Your task to perform on an android device: all mails in gmail Image 0: 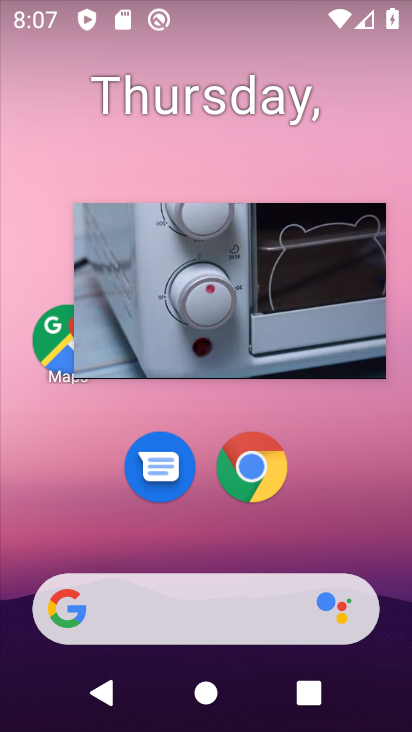
Step 0: click (233, 270)
Your task to perform on an android device: all mails in gmail Image 1: 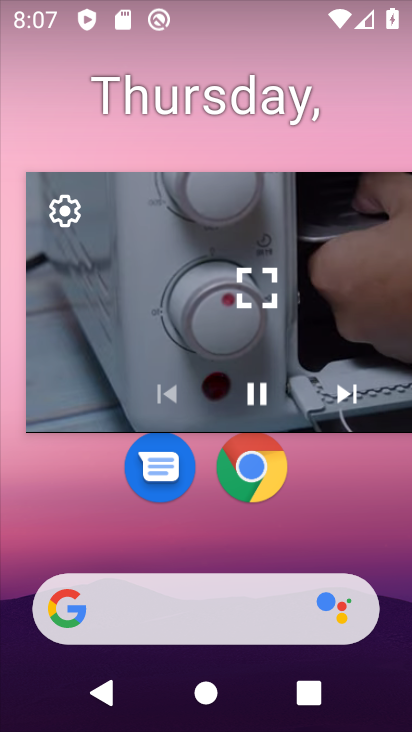
Step 1: click (226, 275)
Your task to perform on an android device: all mails in gmail Image 2: 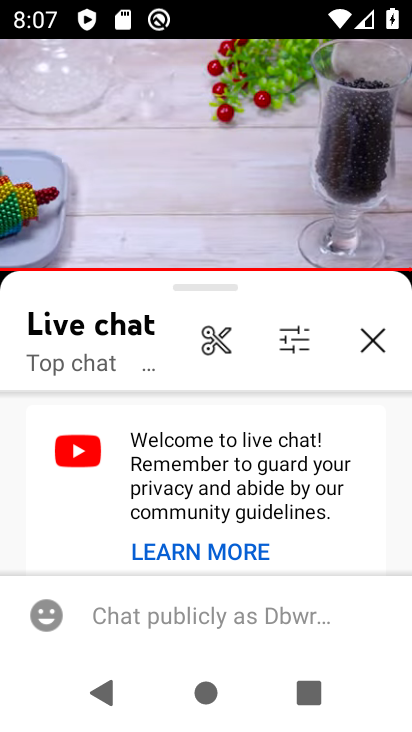
Step 2: click (222, 132)
Your task to perform on an android device: all mails in gmail Image 3: 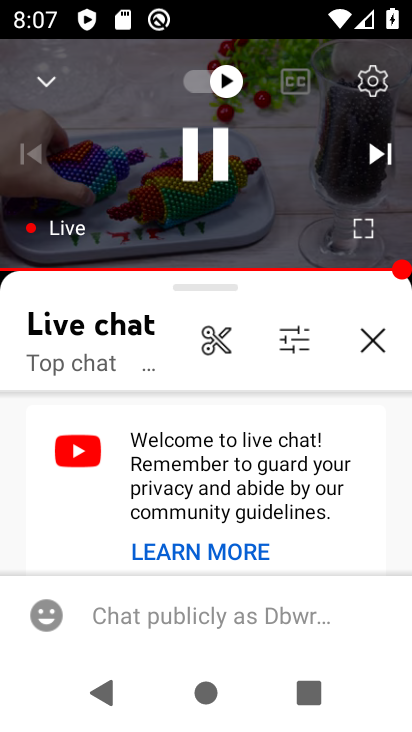
Step 3: click (219, 158)
Your task to perform on an android device: all mails in gmail Image 4: 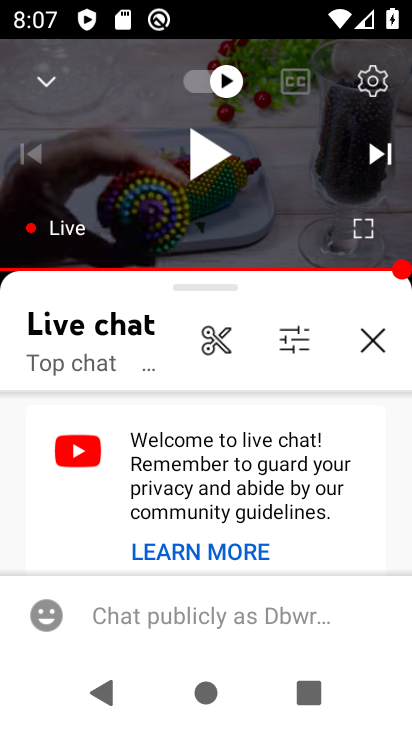
Step 4: press home button
Your task to perform on an android device: all mails in gmail Image 5: 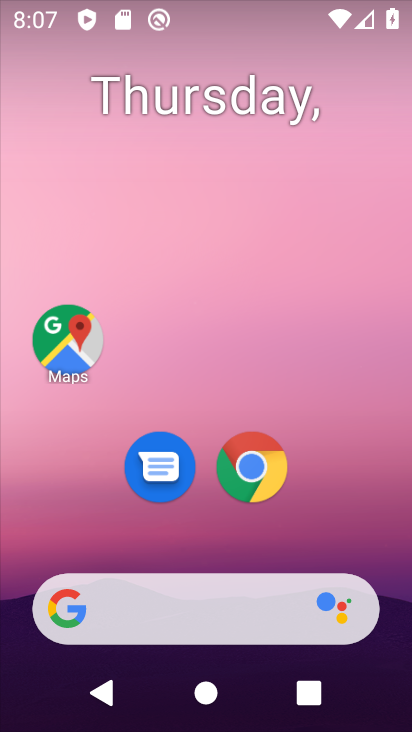
Step 5: drag from (205, 516) to (351, 20)
Your task to perform on an android device: all mails in gmail Image 6: 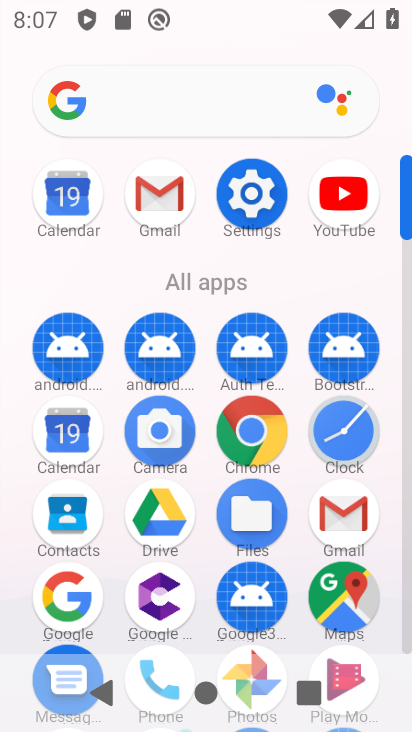
Step 6: click (163, 200)
Your task to perform on an android device: all mails in gmail Image 7: 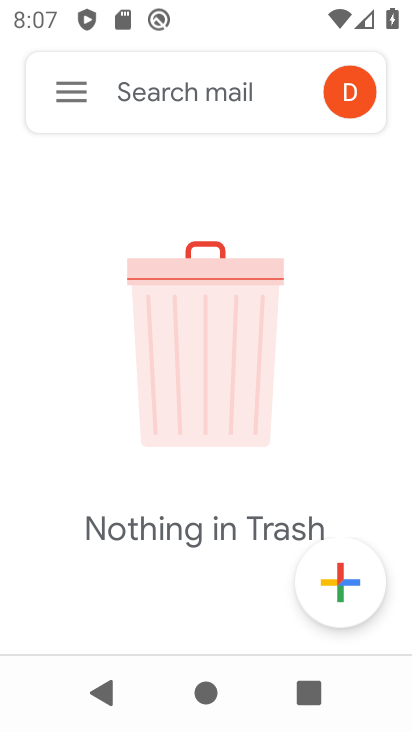
Step 7: click (56, 92)
Your task to perform on an android device: all mails in gmail Image 8: 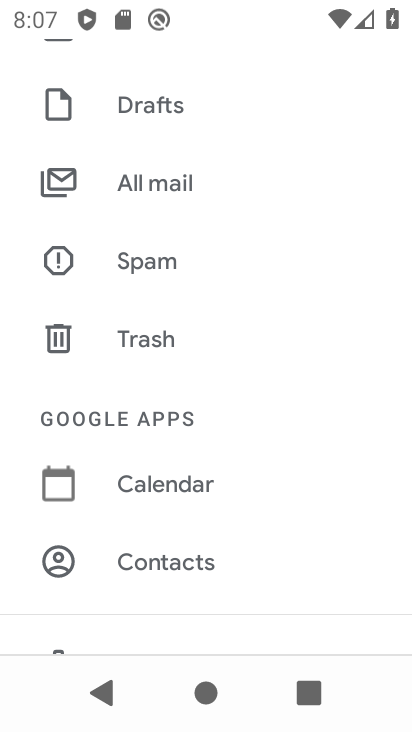
Step 8: click (143, 189)
Your task to perform on an android device: all mails in gmail Image 9: 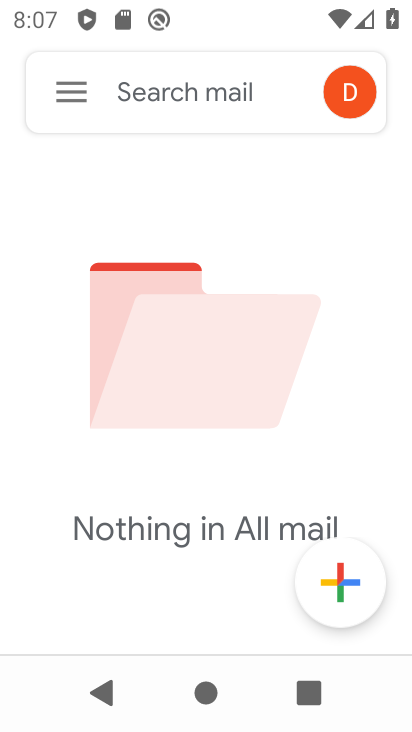
Step 9: task complete